Your task to perform on an android device: Open ESPN.com Image 0: 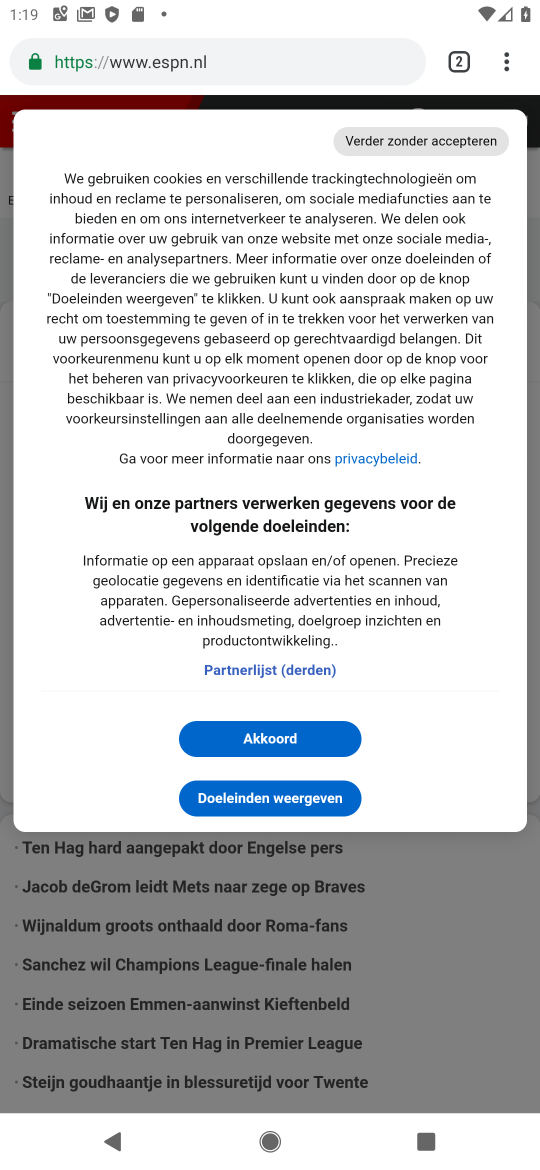
Step 0: click (410, 896)
Your task to perform on an android device: Open ESPN.com Image 1: 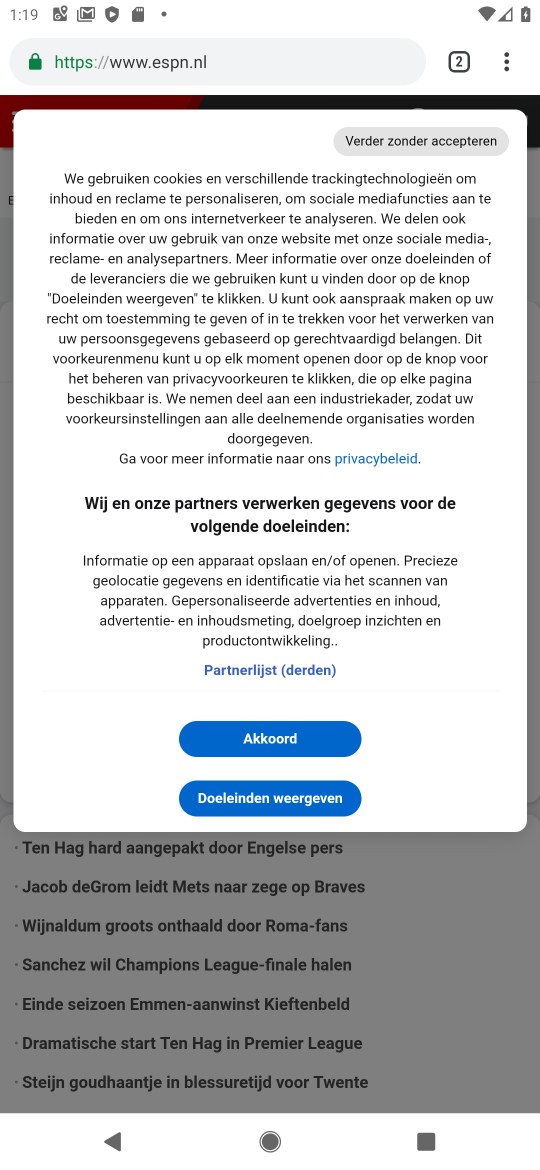
Step 1: click (496, 62)
Your task to perform on an android device: Open ESPN.com Image 2: 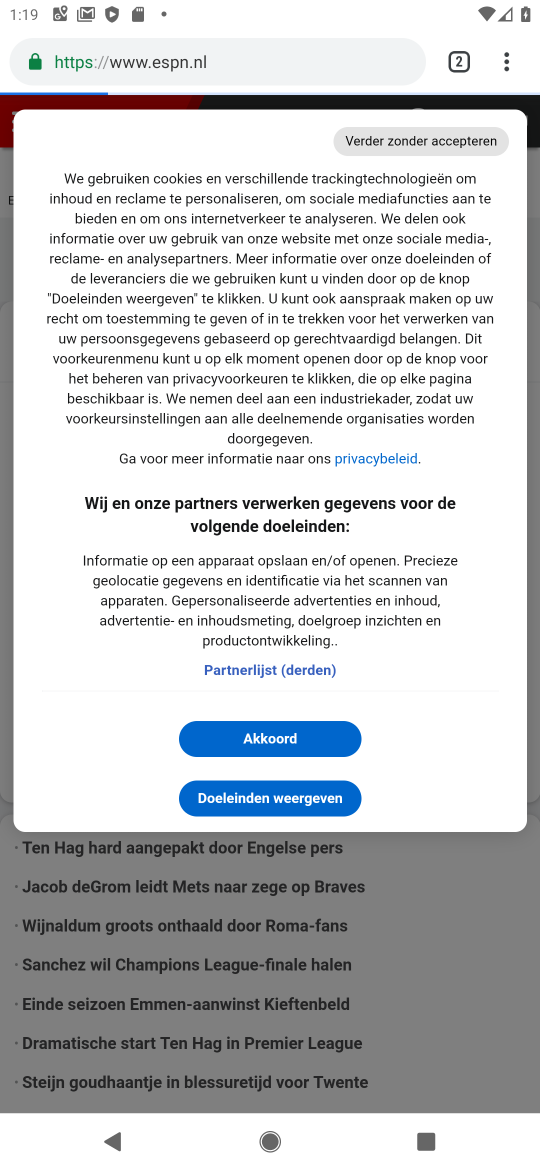
Step 2: click (496, 68)
Your task to perform on an android device: Open ESPN.com Image 3: 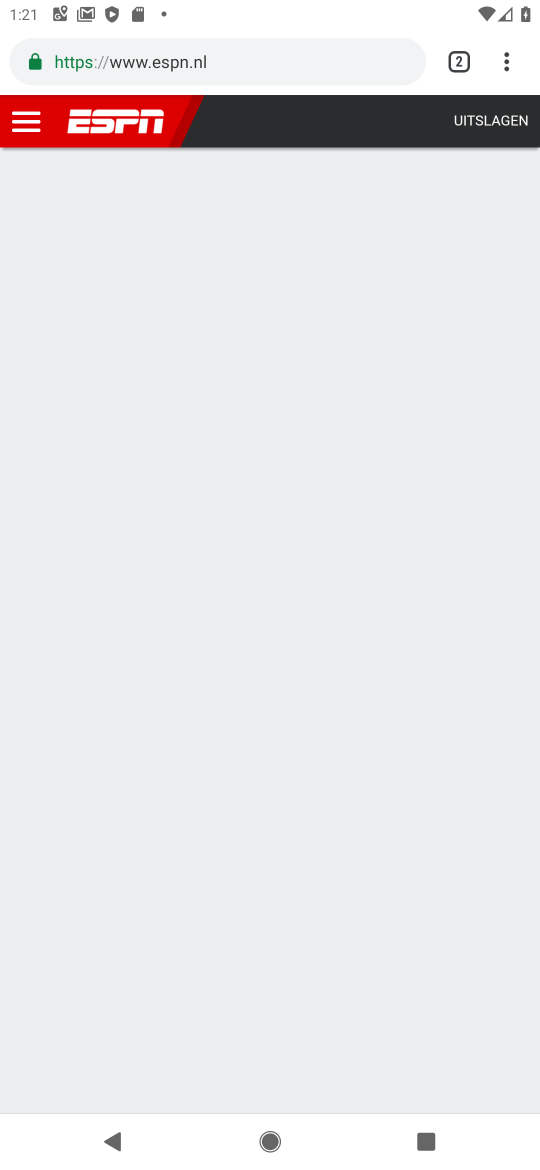
Step 3: task complete